Your task to perform on an android device: Go to wifi settings Image 0: 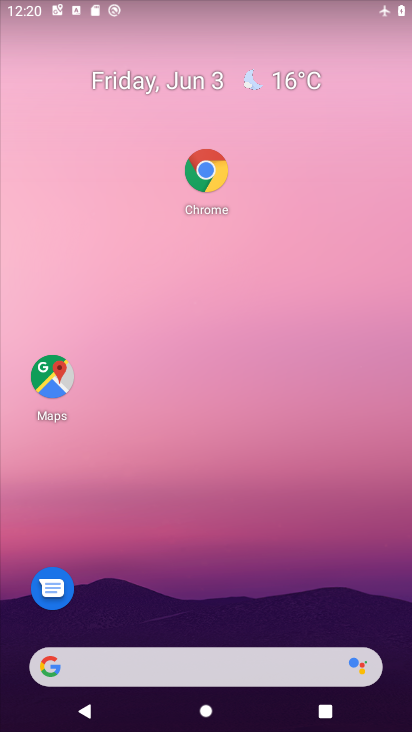
Step 0: drag from (266, 493) to (331, 172)
Your task to perform on an android device: Go to wifi settings Image 1: 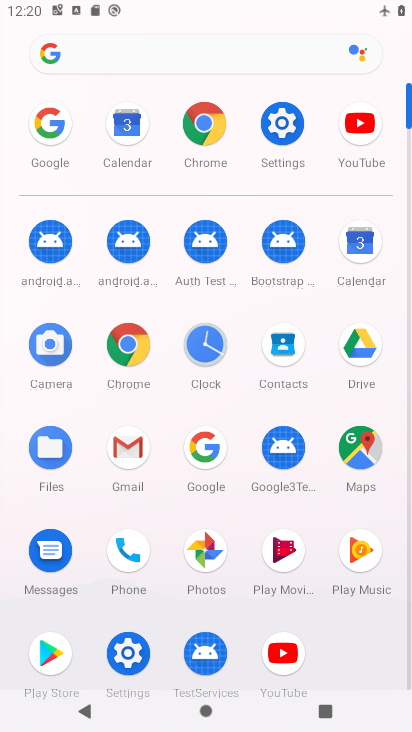
Step 1: click (276, 157)
Your task to perform on an android device: Go to wifi settings Image 2: 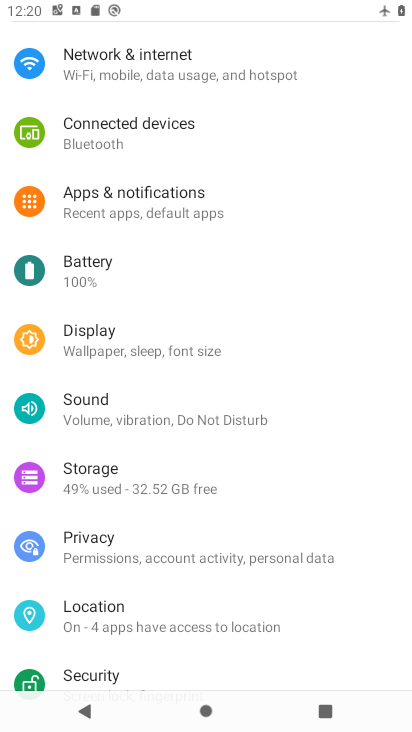
Step 2: drag from (197, 289) to (174, 618)
Your task to perform on an android device: Go to wifi settings Image 3: 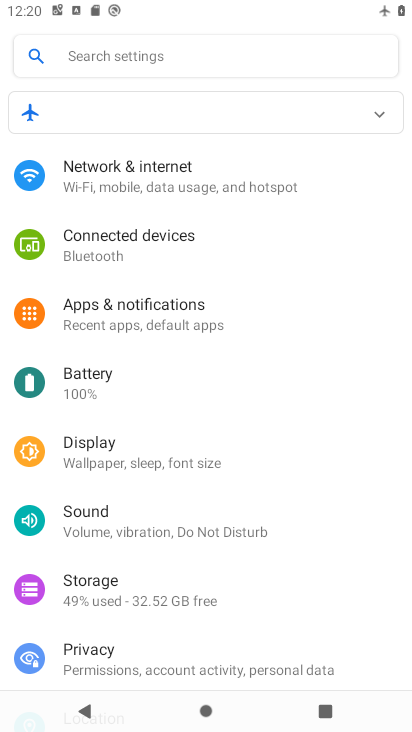
Step 3: click (219, 173)
Your task to perform on an android device: Go to wifi settings Image 4: 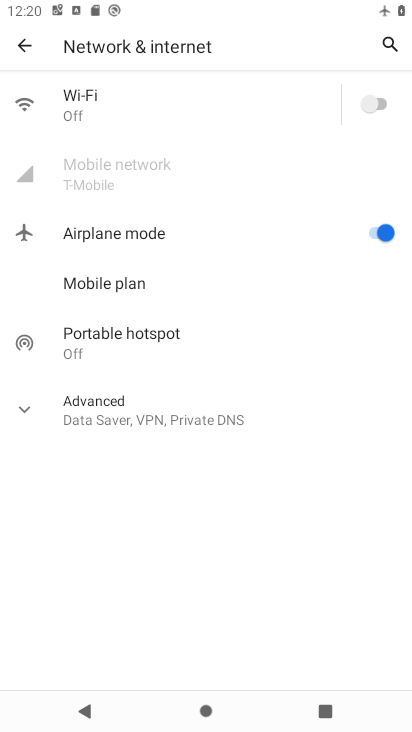
Step 4: click (213, 118)
Your task to perform on an android device: Go to wifi settings Image 5: 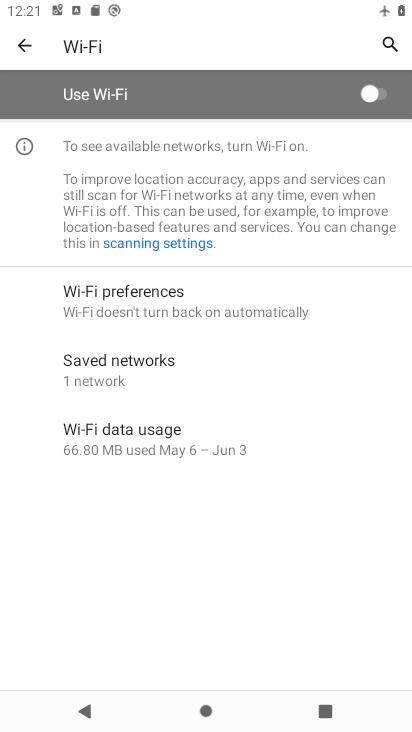
Step 5: task complete